Your task to perform on an android device: Is it going to rain tomorrow? Image 0: 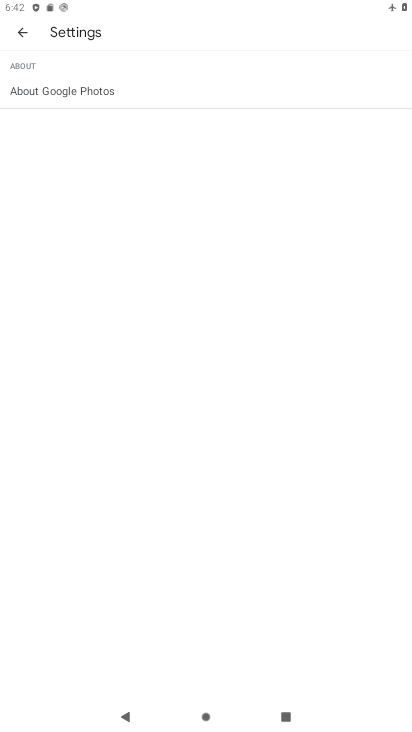
Step 0: press home button
Your task to perform on an android device: Is it going to rain tomorrow? Image 1: 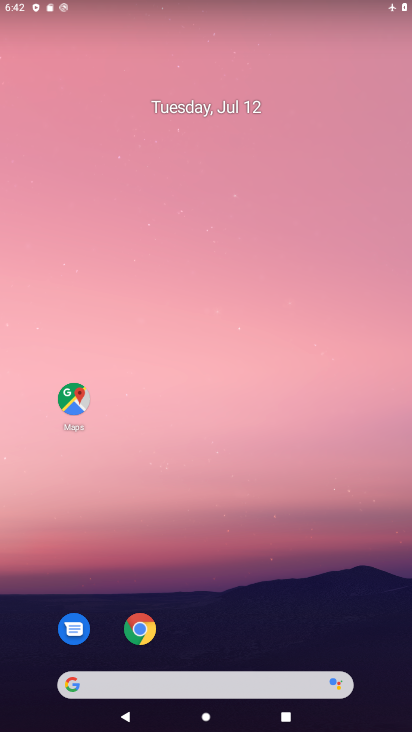
Step 1: drag from (294, 583) to (212, 126)
Your task to perform on an android device: Is it going to rain tomorrow? Image 2: 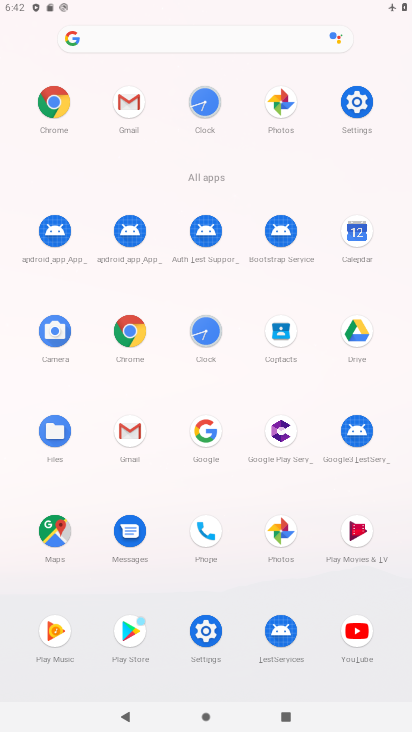
Step 2: click (205, 434)
Your task to perform on an android device: Is it going to rain tomorrow? Image 3: 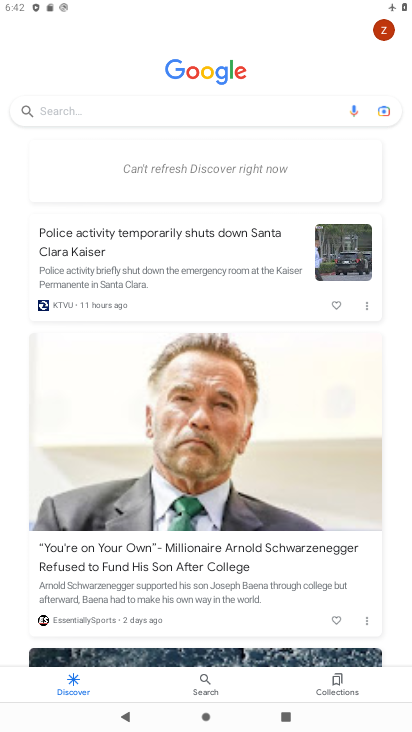
Step 3: click (142, 108)
Your task to perform on an android device: Is it going to rain tomorrow? Image 4: 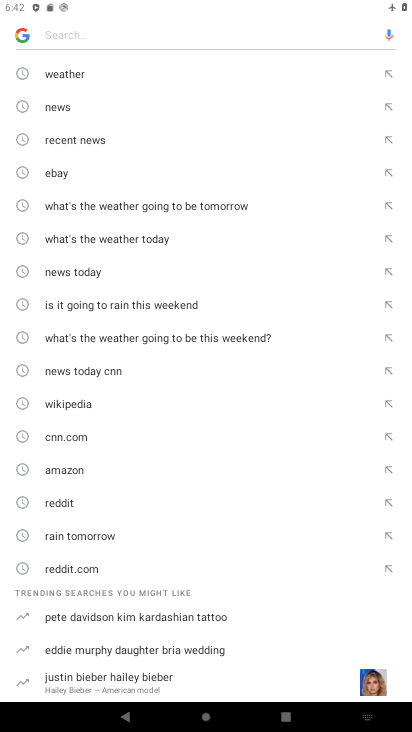
Step 4: click (78, 74)
Your task to perform on an android device: Is it going to rain tomorrow? Image 5: 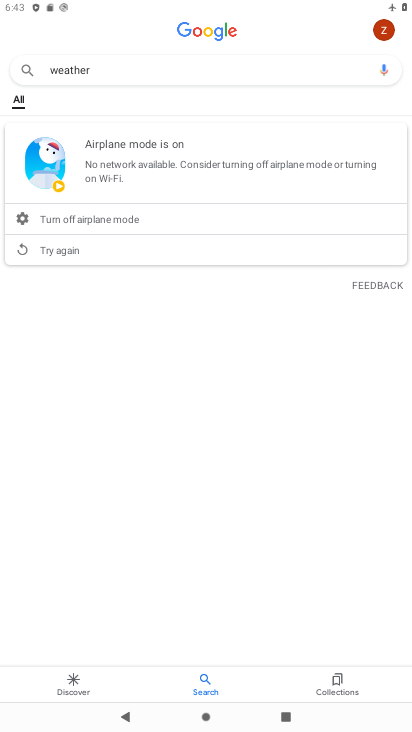
Step 5: task complete